Your task to perform on an android device: Open battery settings Image 0: 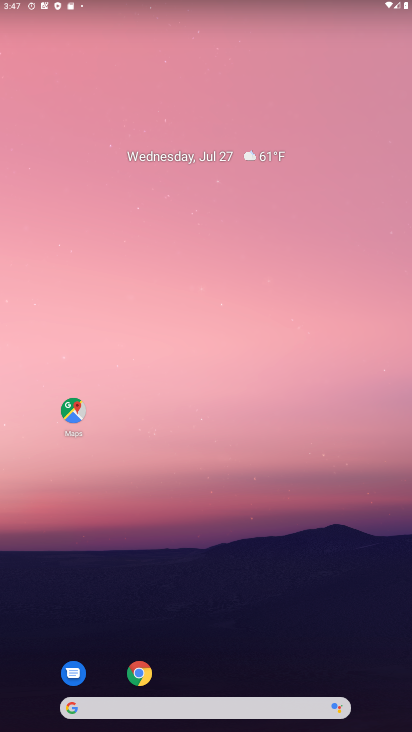
Step 0: drag from (107, 557) to (218, 180)
Your task to perform on an android device: Open battery settings Image 1: 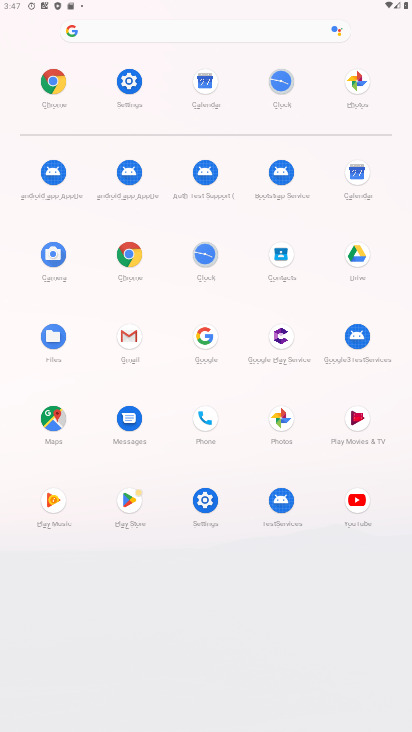
Step 1: click (200, 495)
Your task to perform on an android device: Open battery settings Image 2: 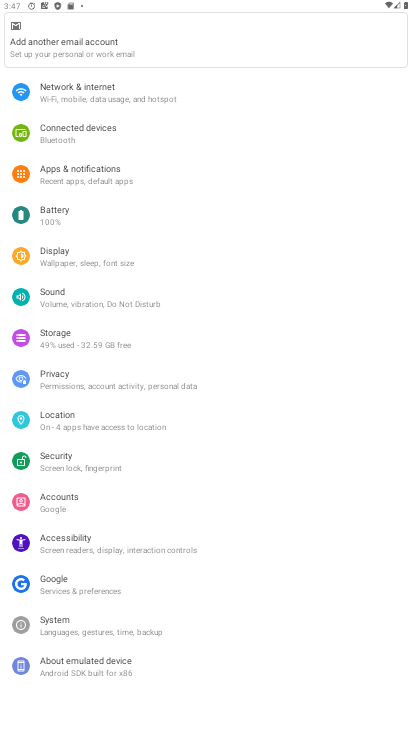
Step 2: click (89, 216)
Your task to perform on an android device: Open battery settings Image 3: 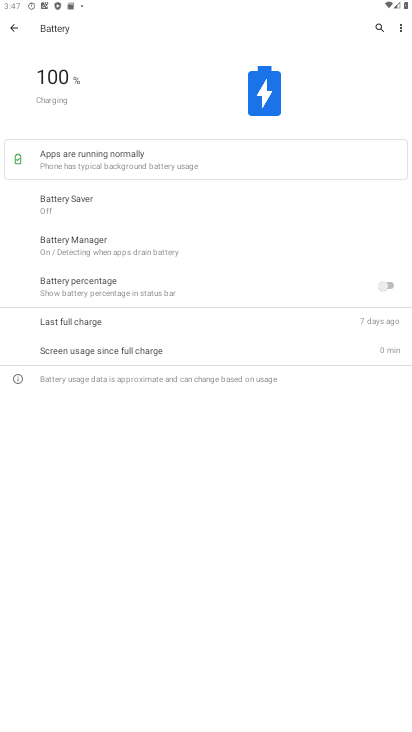
Step 3: task complete